Your task to perform on an android device: check data usage Image 0: 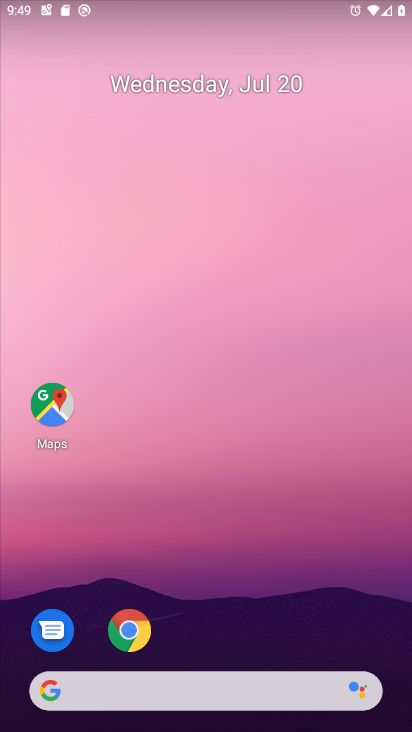
Step 0: drag from (221, 681) to (201, 92)
Your task to perform on an android device: check data usage Image 1: 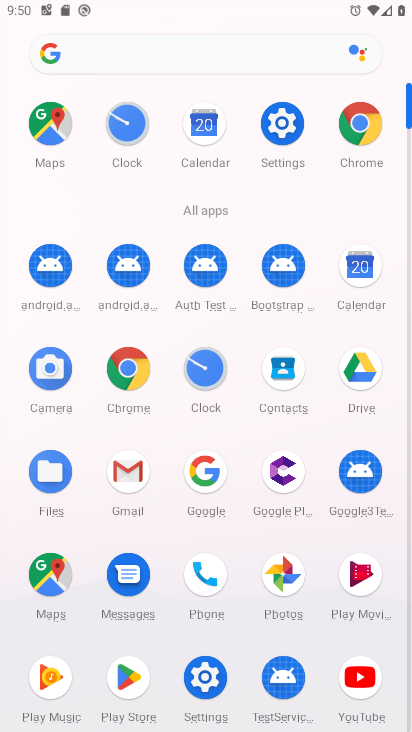
Step 1: click (273, 133)
Your task to perform on an android device: check data usage Image 2: 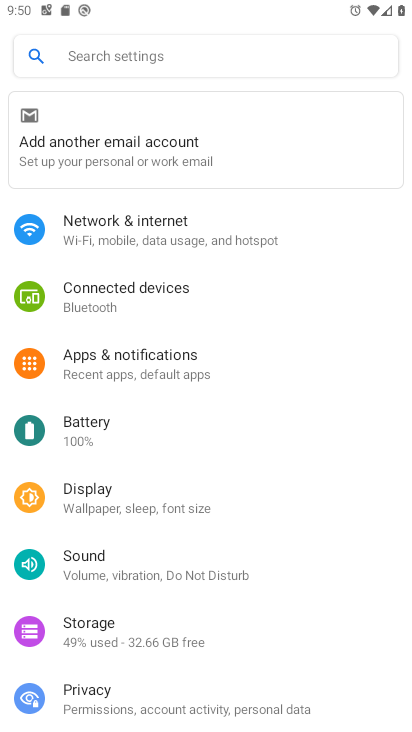
Step 2: click (123, 213)
Your task to perform on an android device: check data usage Image 3: 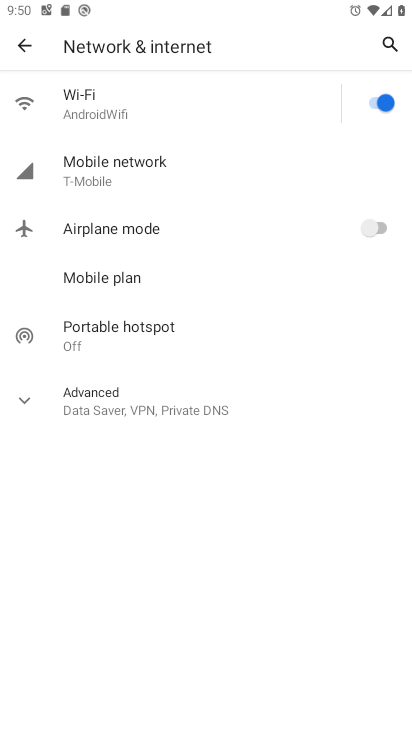
Step 3: click (108, 169)
Your task to perform on an android device: check data usage Image 4: 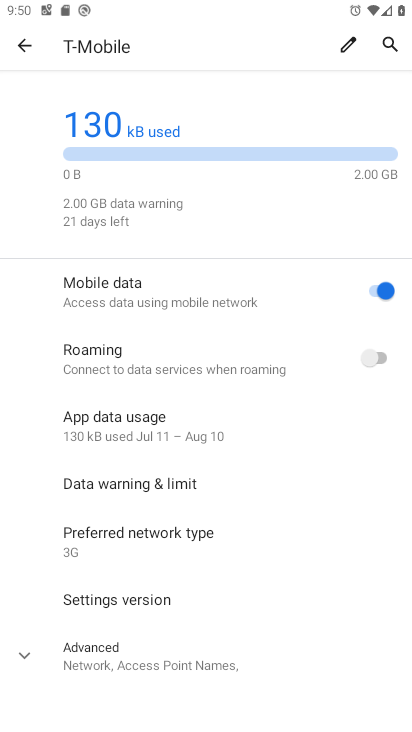
Step 4: task complete